Your task to perform on an android device: turn off location history Image 0: 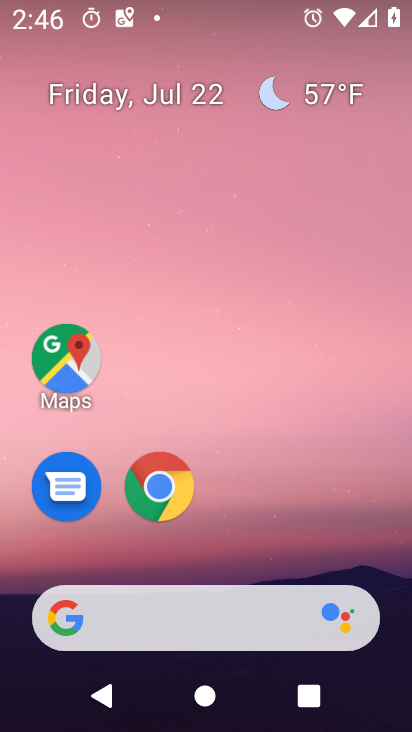
Step 0: drag from (375, 537) to (368, 103)
Your task to perform on an android device: turn off location history Image 1: 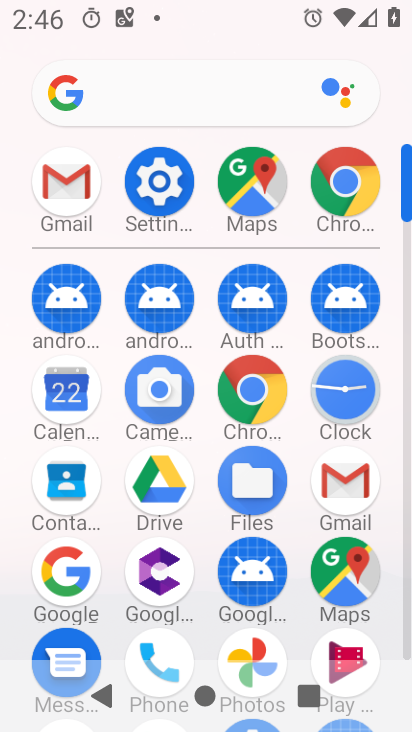
Step 1: click (164, 189)
Your task to perform on an android device: turn off location history Image 2: 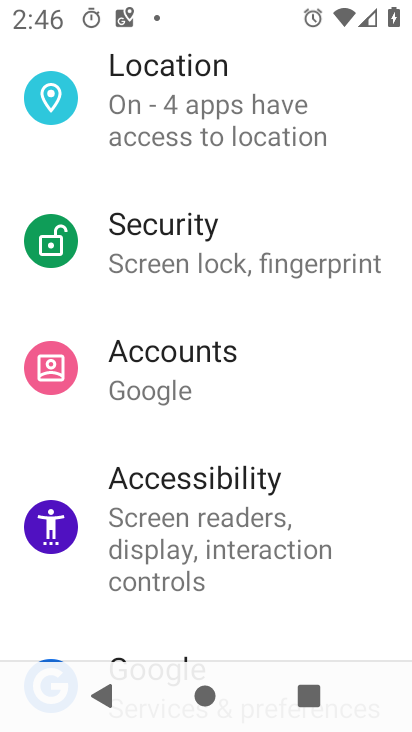
Step 2: drag from (345, 530) to (354, 459)
Your task to perform on an android device: turn off location history Image 3: 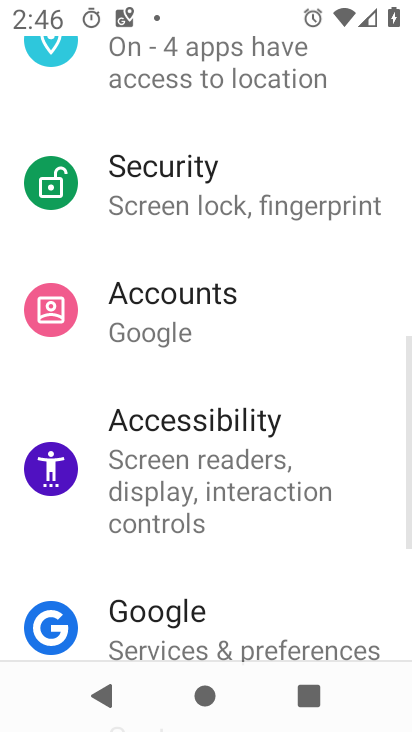
Step 3: drag from (350, 573) to (349, 422)
Your task to perform on an android device: turn off location history Image 4: 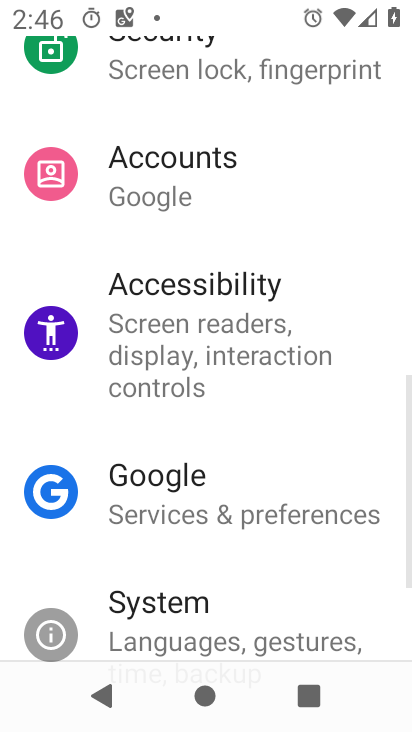
Step 4: drag from (359, 322) to (357, 411)
Your task to perform on an android device: turn off location history Image 5: 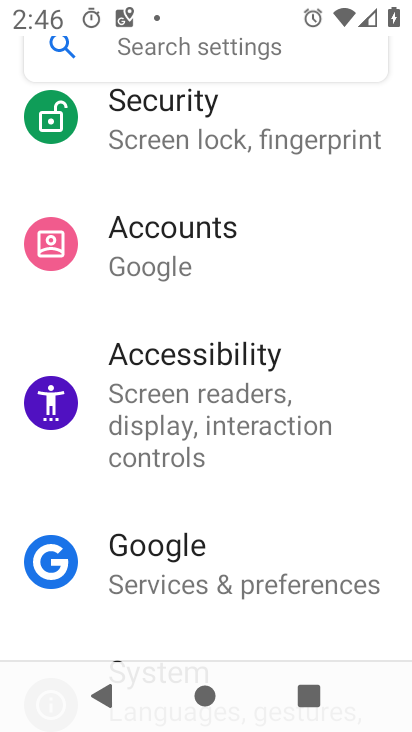
Step 5: drag from (357, 325) to (358, 400)
Your task to perform on an android device: turn off location history Image 6: 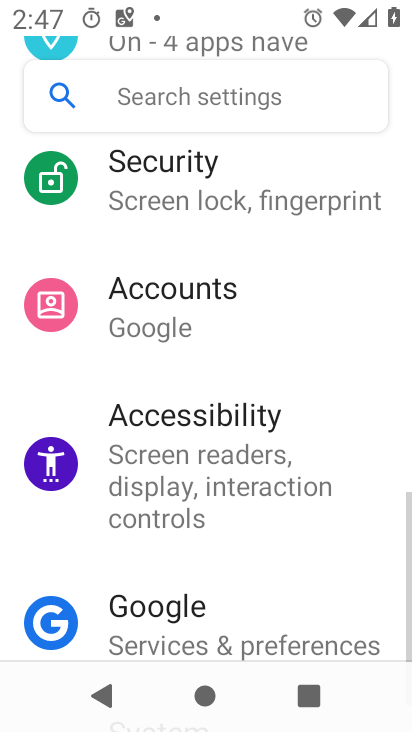
Step 6: drag from (358, 352) to (357, 438)
Your task to perform on an android device: turn off location history Image 7: 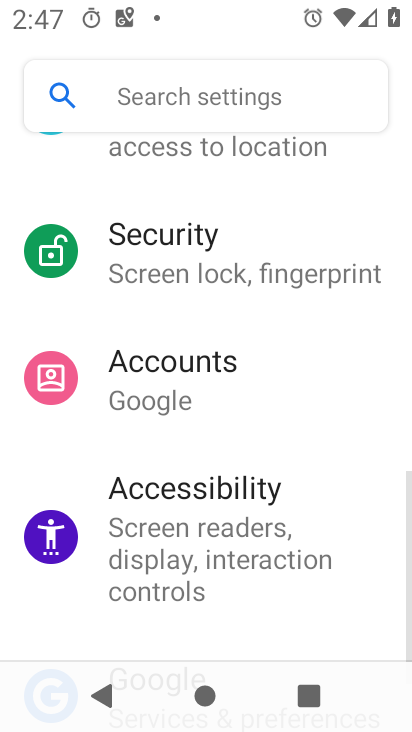
Step 7: drag from (357, 362) to (356, 432)
Your task to perform on an android device: turn off location history Image 8: 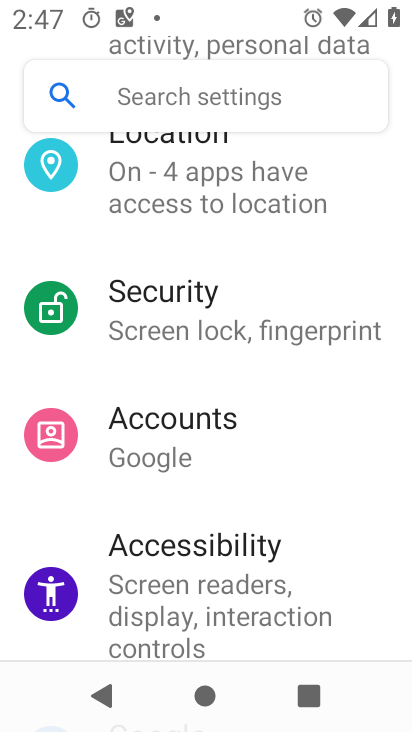
Step 8: drag from (364, 368) to (364, 471)
Your task to perform on an android device: turn off location history Image 9: 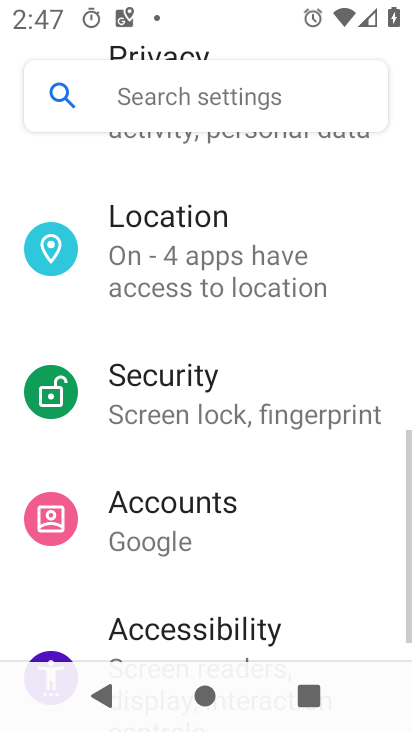
Step 9: drag from (369, 340) to (367, 426)
Your task to perform on an android device: turn off location history Image 10: 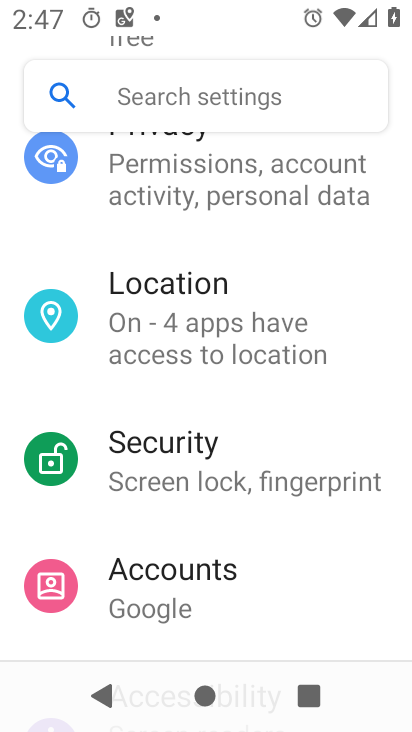
Step 10: drag from (364, 319) to (359, 428)
Your task to perform on an android device: turn off location history Image 11: 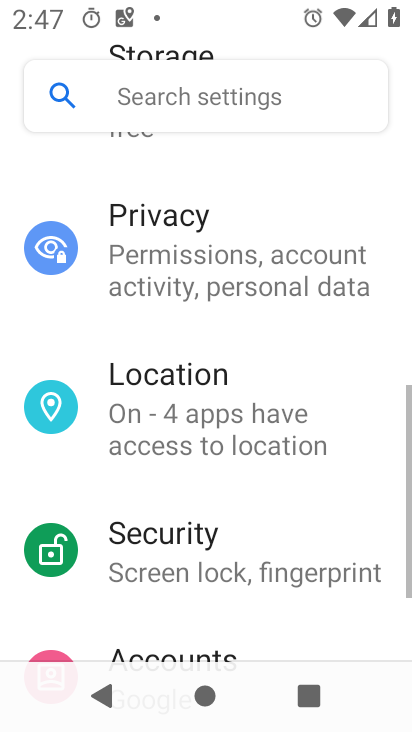
Step 11: click (359, 428)
Your task to perform on an android device: turn off location history Image 12: 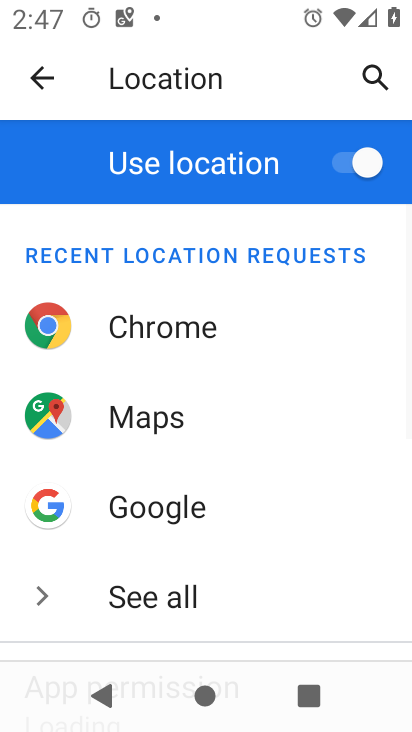
Step 12: drag from (349, 503) to (352, 431)
Your task to perform on an android device: turn off location history Image 13: 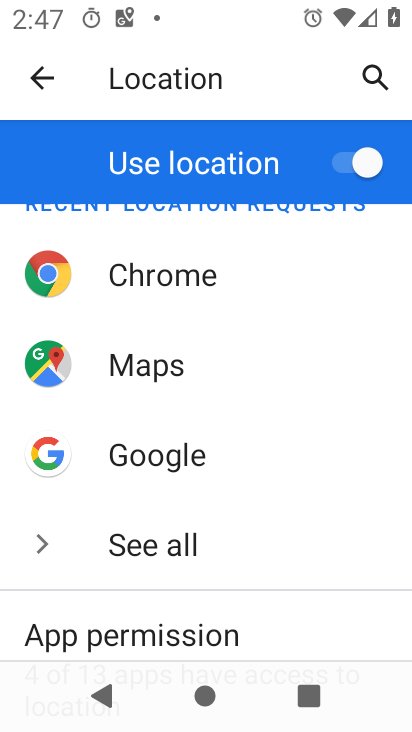
Step 13: drag from (339, 523) to (343, 439)
Your task to perform on an android device: turn off location history Image 14: 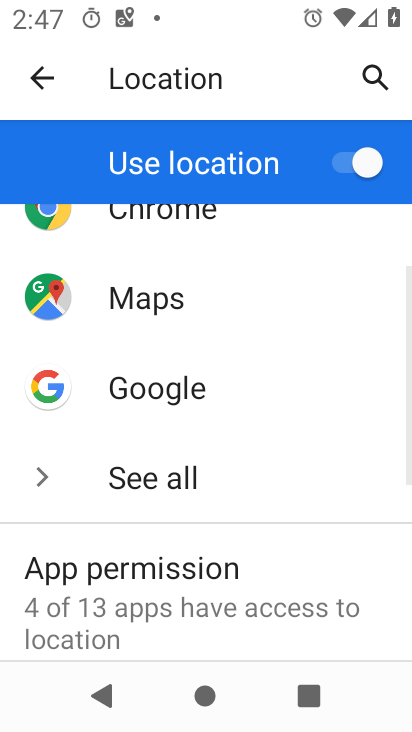
Step 14: drag from (331, 542) to (333, 461)
Your task to perform on an android device: turn off location history Image 15: 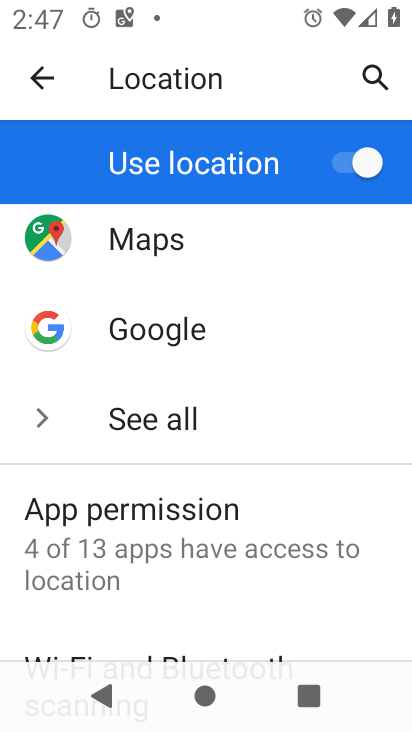
Step 15: drag from (343, 598) to (342, 479)
Your task to perform on an android device: turn off location history Image 16: 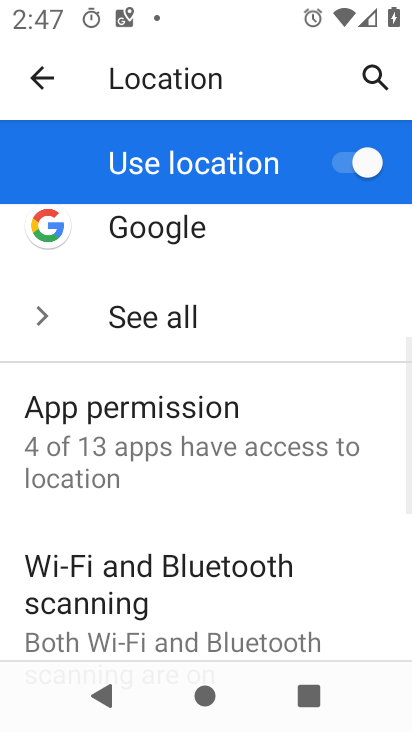
Step 16: drag from (340, 568) to (343, 452)
Your task to perform on an android device: turn off location history Image 17: 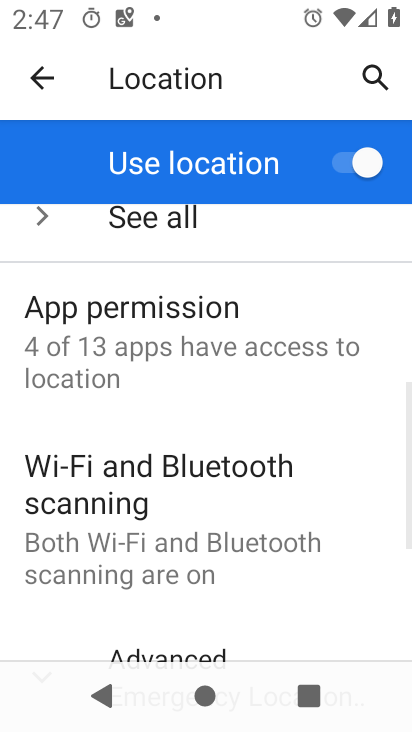
Step 17: drag from (354, 591) to (356, 435)
Your task to perform on an android device: turn off location history Image 18: 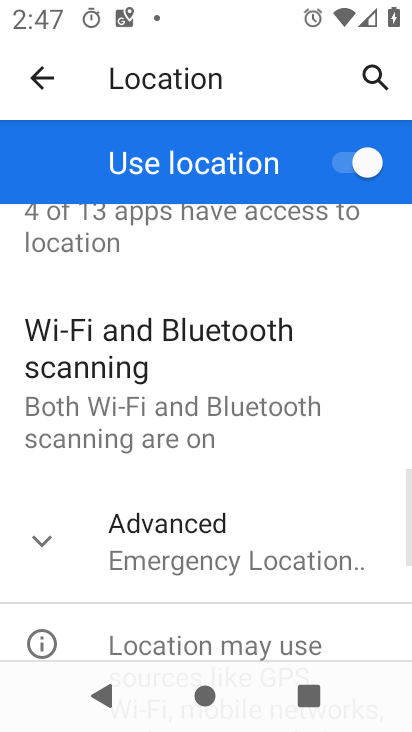
Step 18: click (325, 540)
Your task to perform on an android device: turn off location history Image 19: 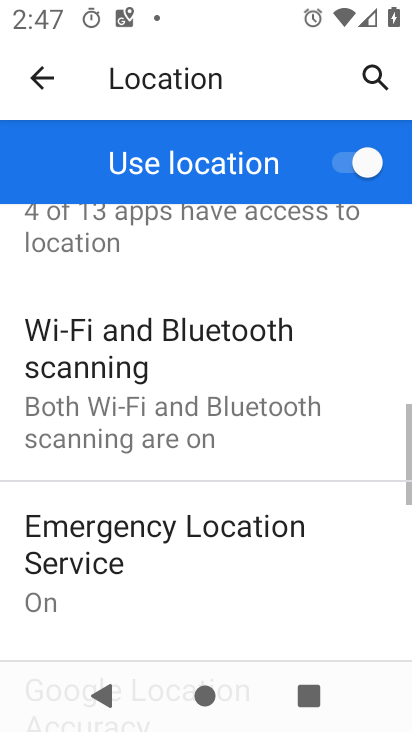
Step 19: task complete